Your task to perform on an android device: open app "Instagram" (install if not already installed) Image 0: 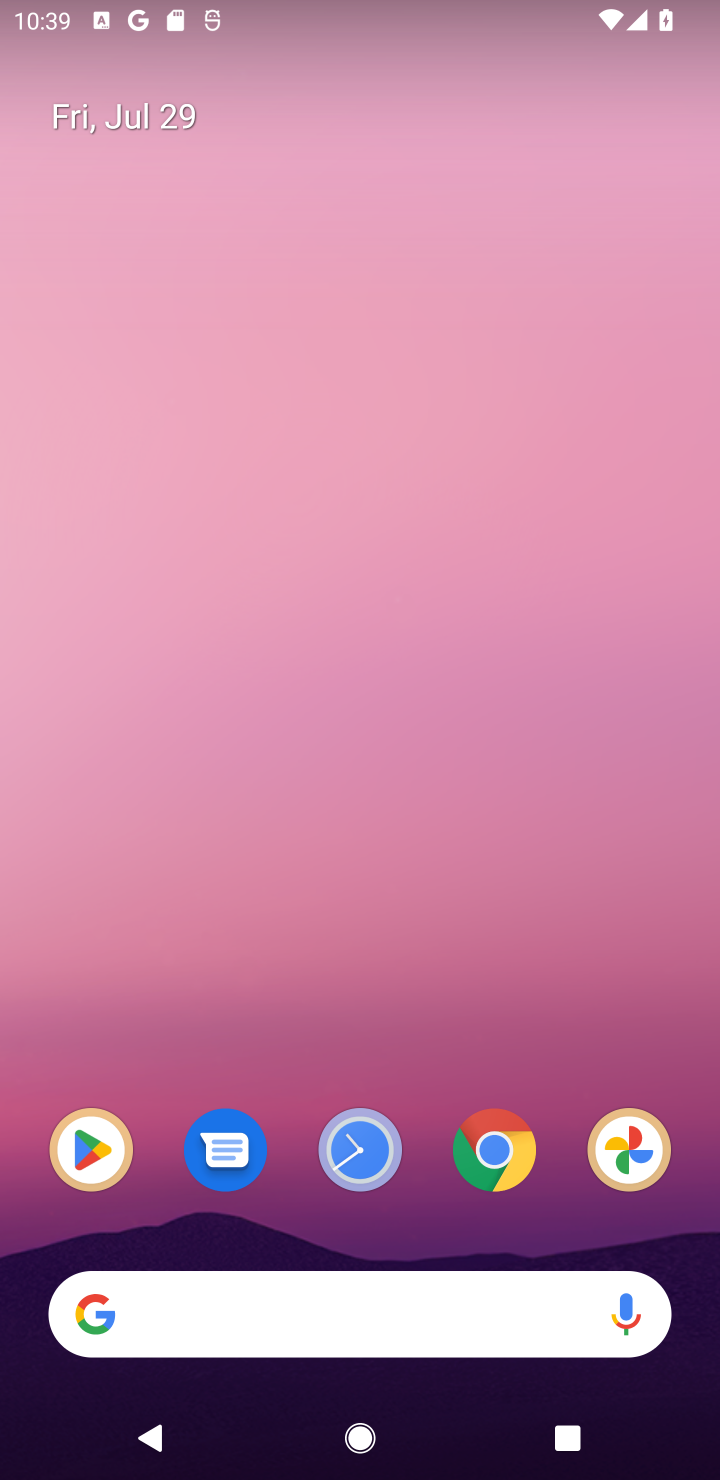
Step 0: click (86, 1139)
Your task to perform on an android device: open app "Instagram" (install if not already installed) Image 1: 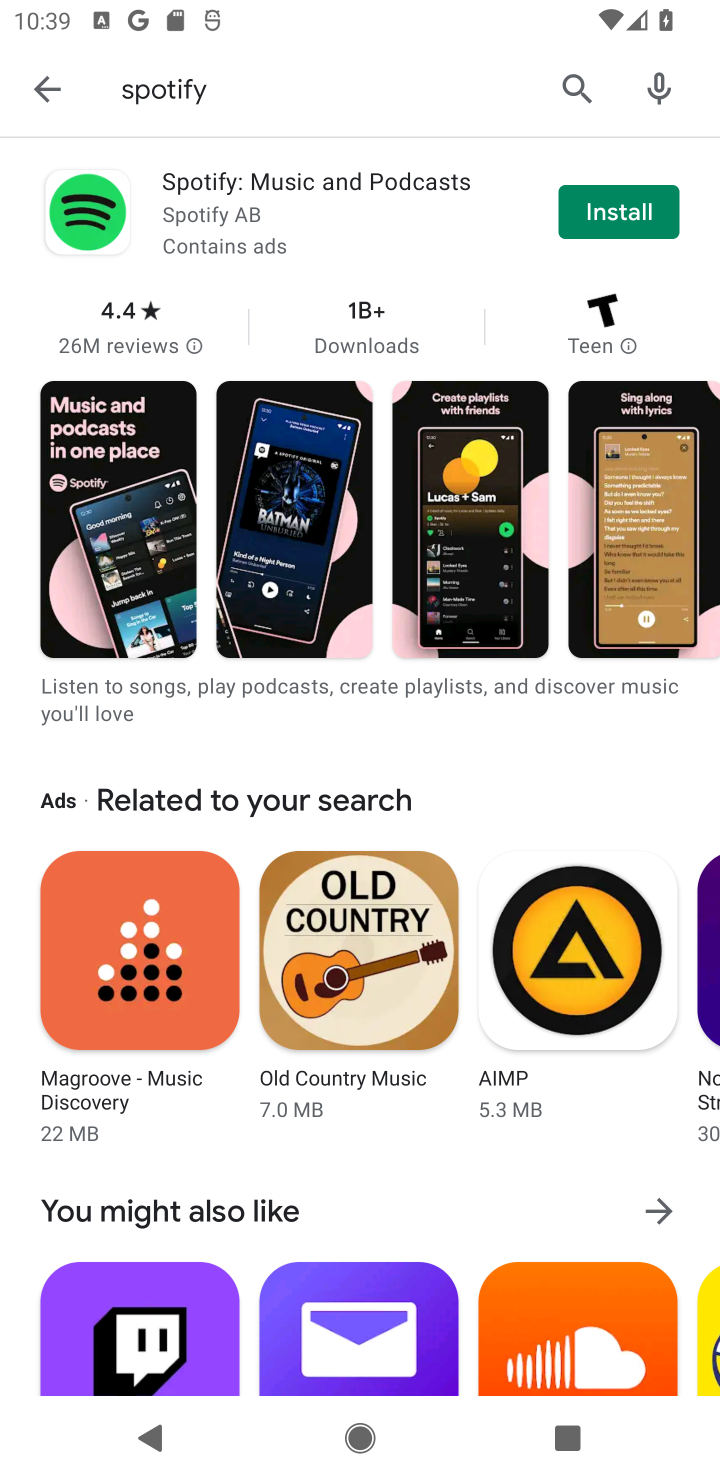
Step 1: click (590, 79)
Your task to perform on an android device: open app "Instagram" (install if not already installed) Image 2: 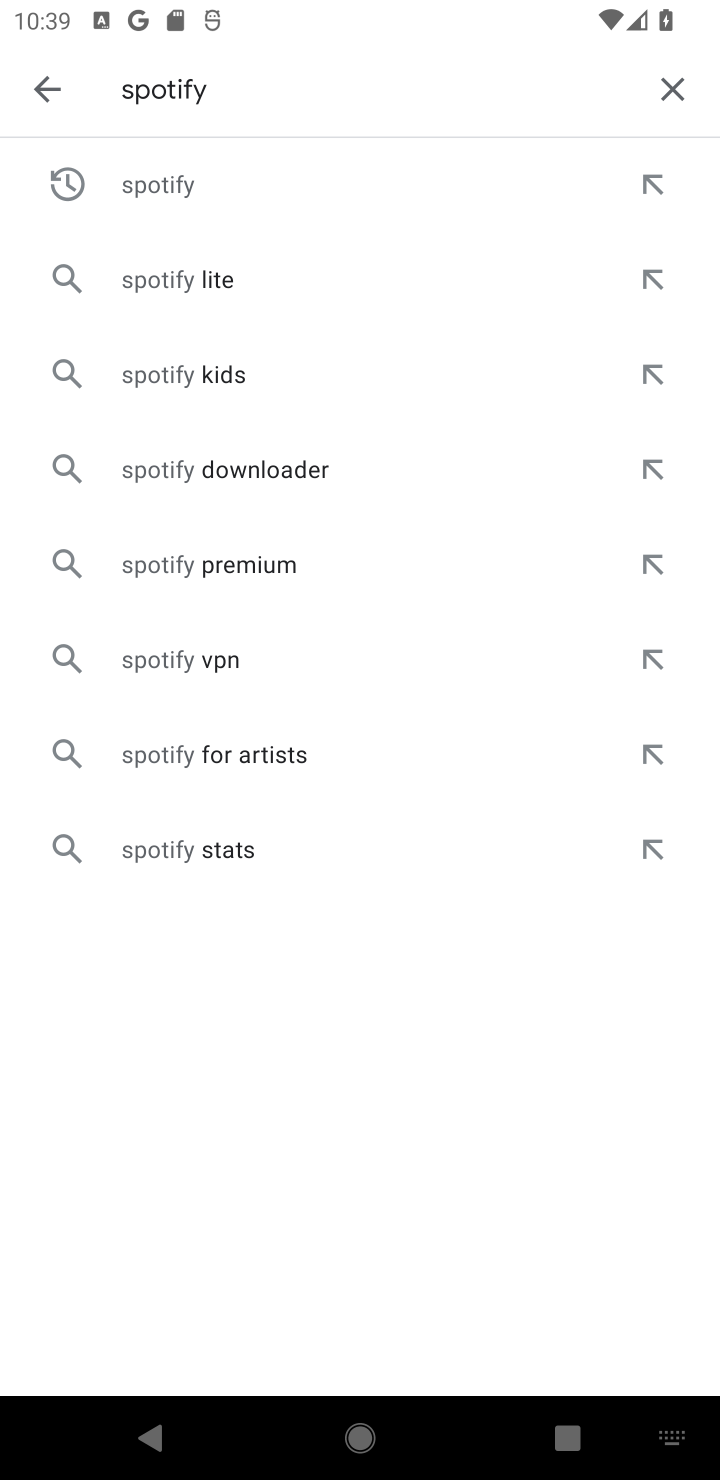
Step 2: click (658, 81)
Your task to perform on an android device: open app "Instagram" (install if not already installed) Image 3: 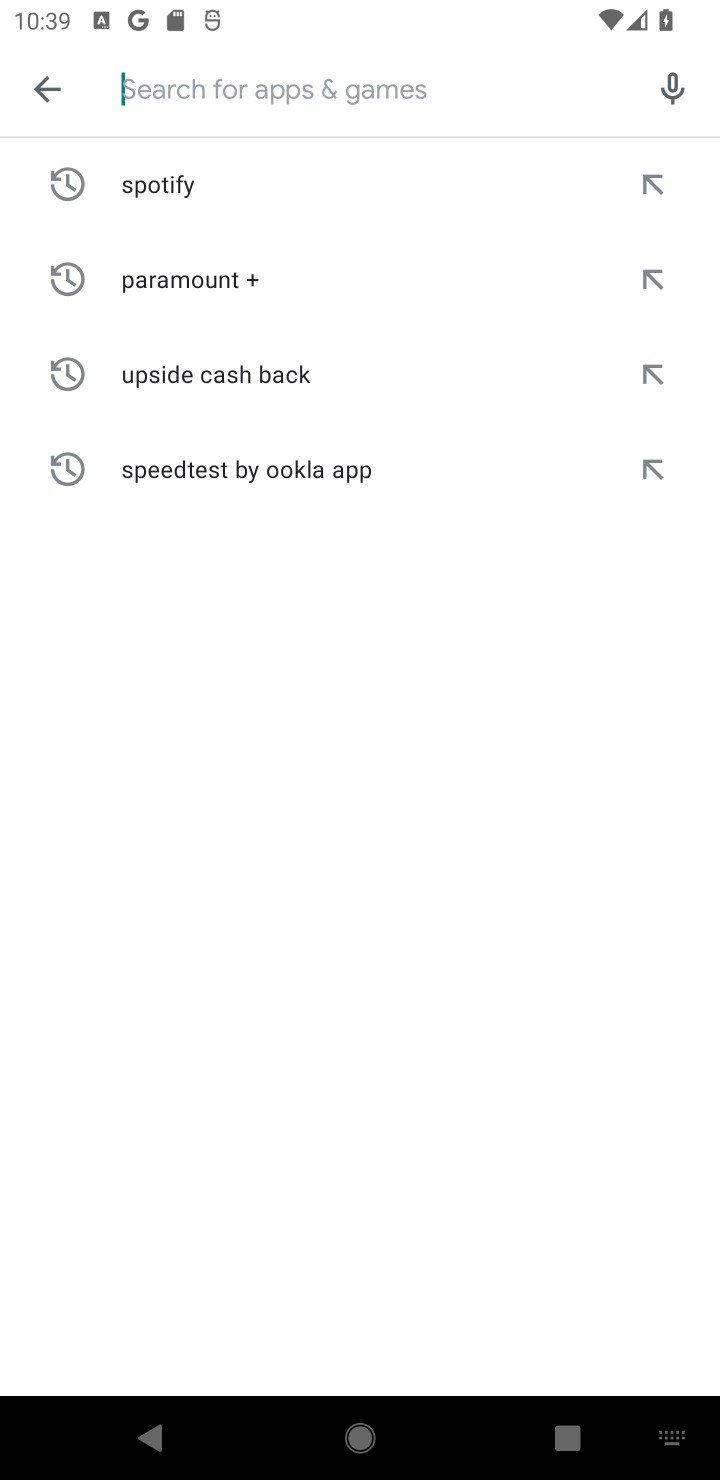
Step 3: type "insyagram"
Your task to perform on an android device: open app "Instagram" (install if not already installed) Image 4: 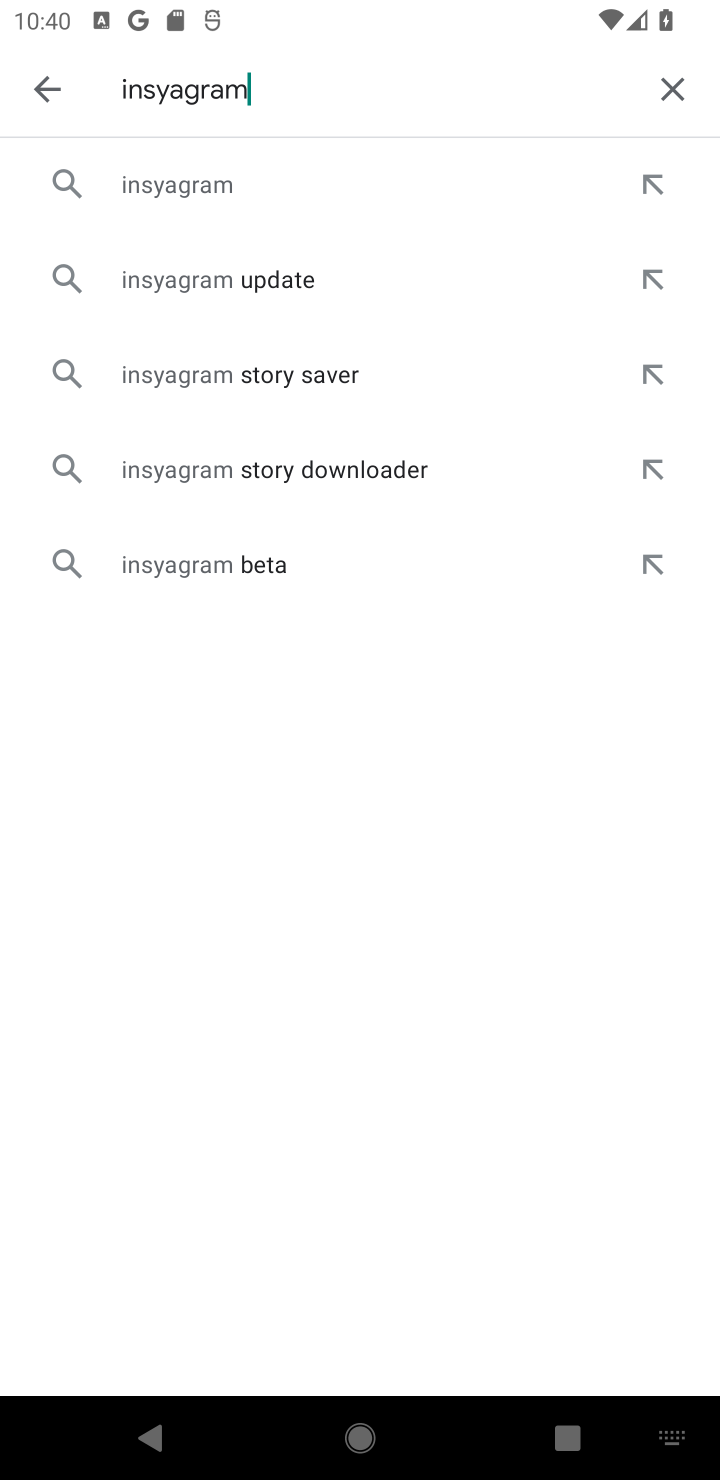
Step 4: click (685, 79)
Your task to perform on an android device: open app "Instagram" (install if not already installed) Image 5: 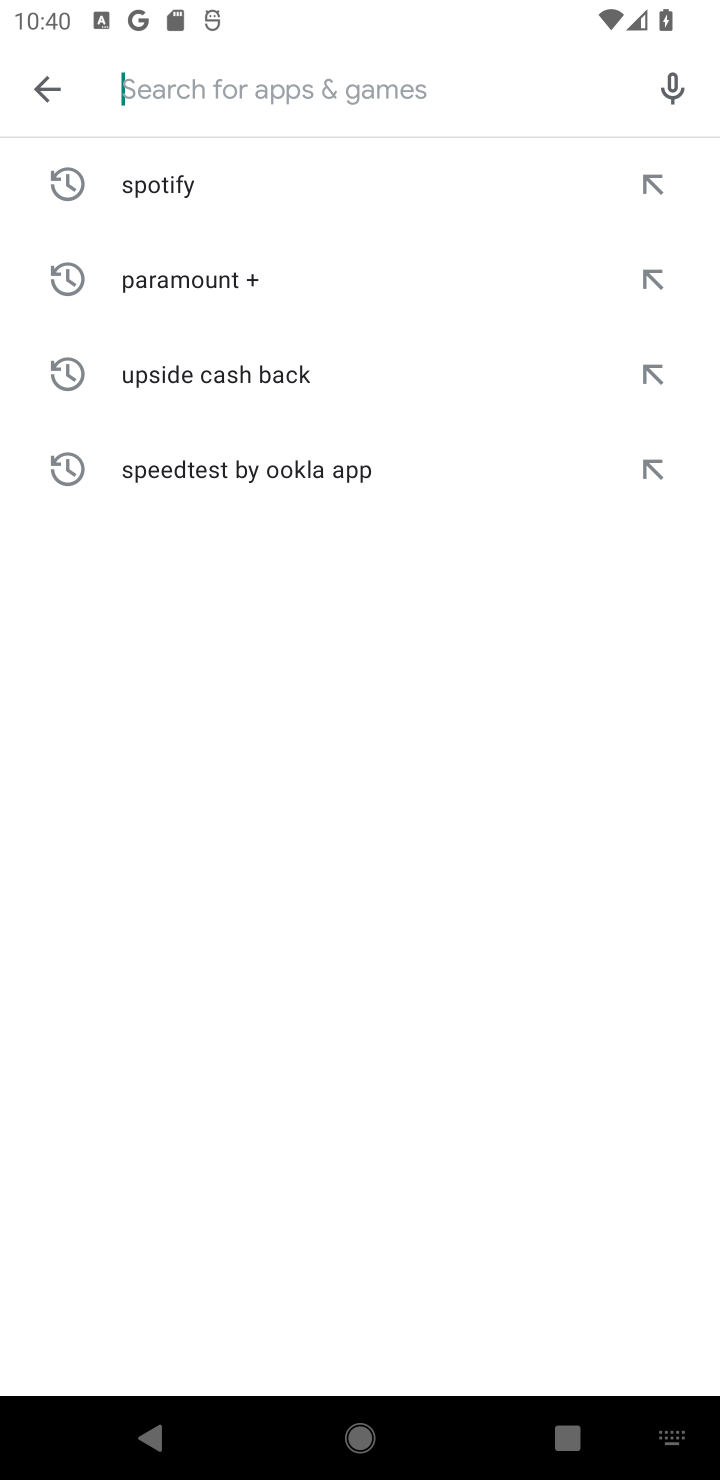
Step 5: type "instagram"
Your task to perform on an android device: open app "Instagram" (install if not already installed) Image 6: 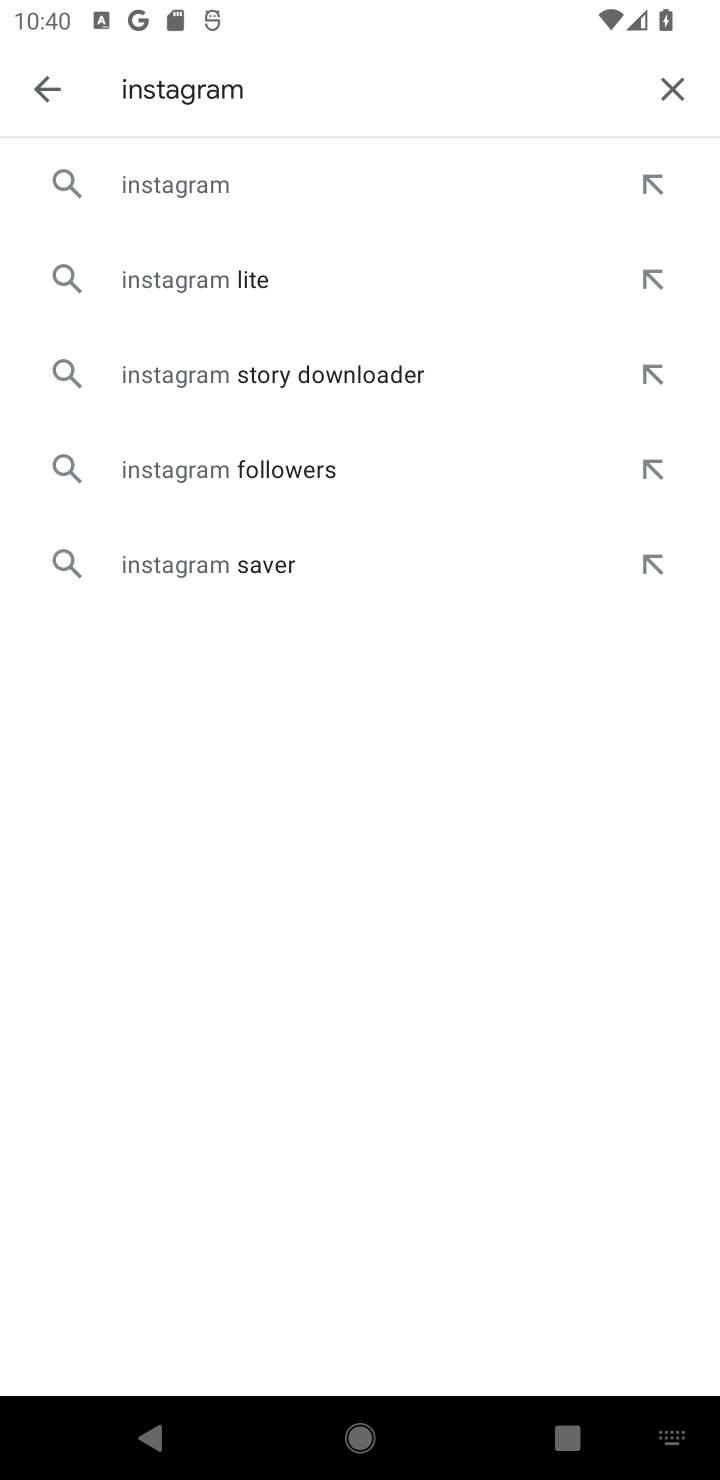
Step 6: click (201, 173)
Your task to perform on an android device: open app "Instagram" (install if not already installed) Image 7: 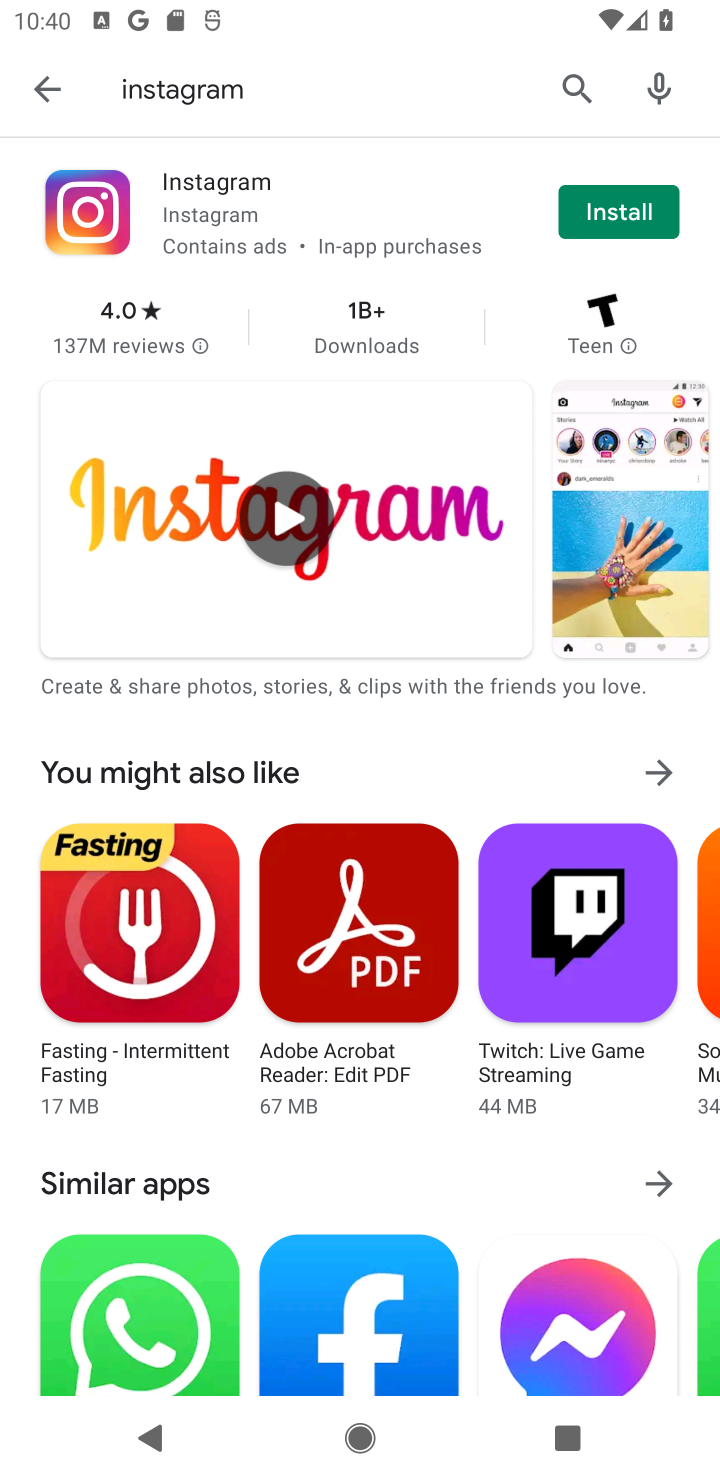
Step 7: click (585, 203)
Your task to perform on an android device: open app "Instagram" (install if not already installed) Image 8: 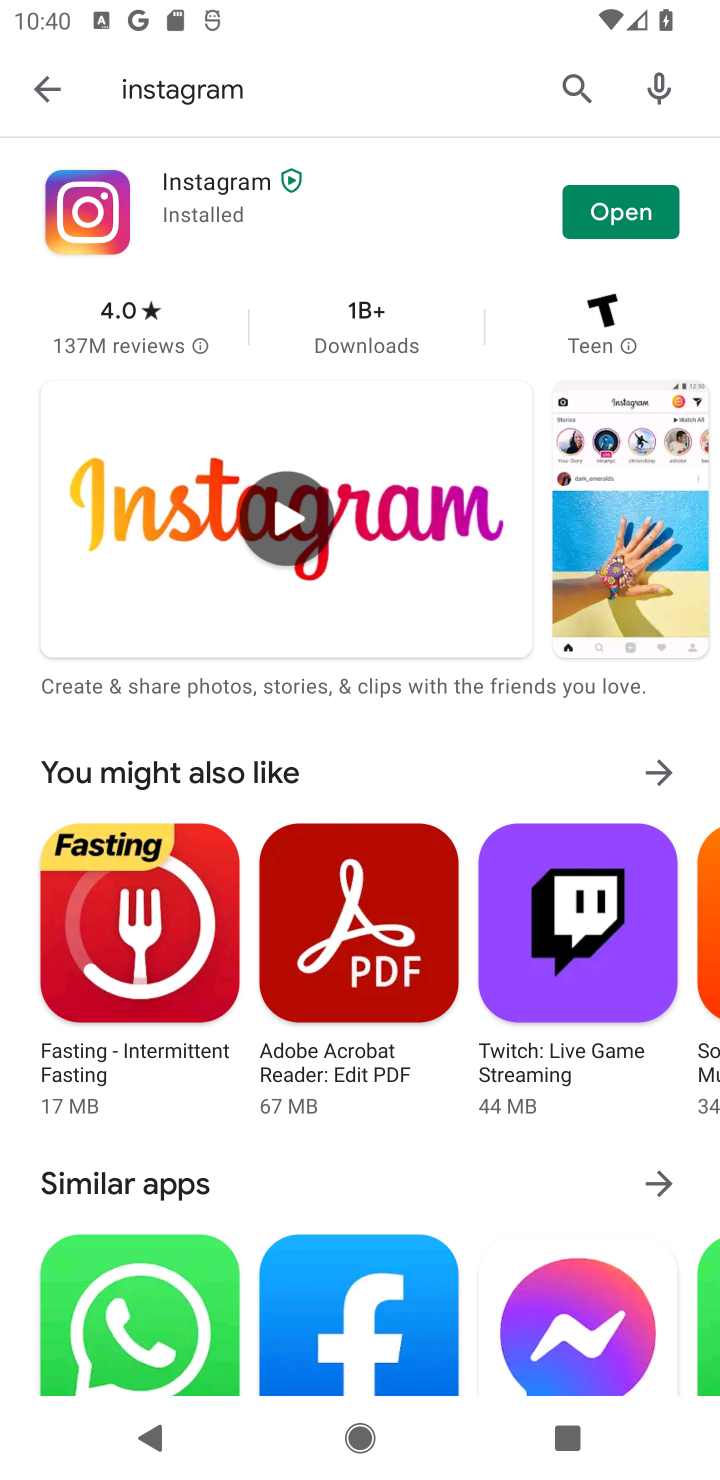
Step 8: click (619, 205)
Your task to perform on an android device: open app "Instagram" (install if not already installed) Image 9: 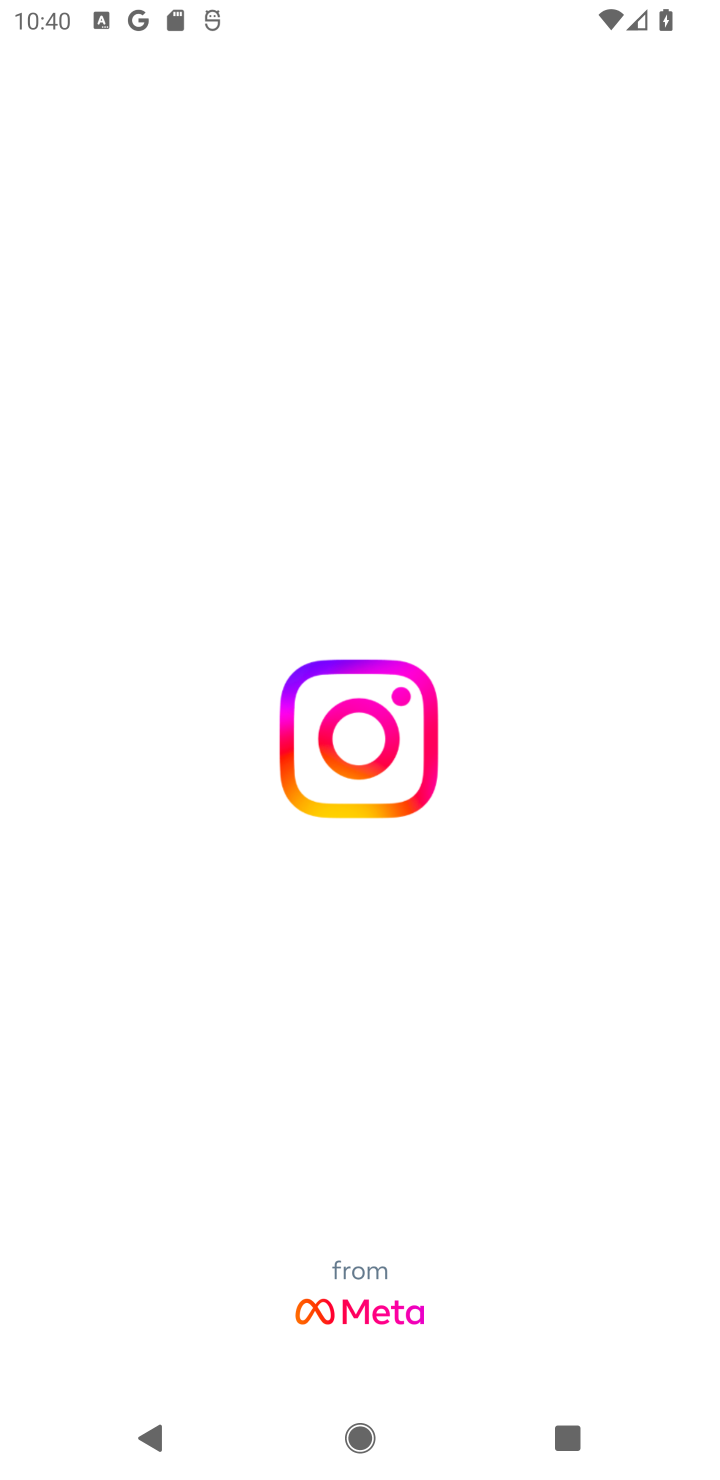
Step 9: task complete